Your task to perform on an android device: open app "Venmo" Image 0: 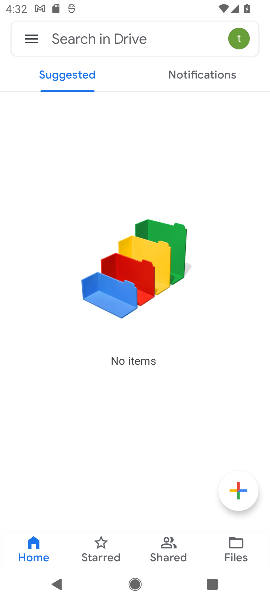
Step 0: press home button
Your task to perform on an android device: open app "Venmo" Image 1: 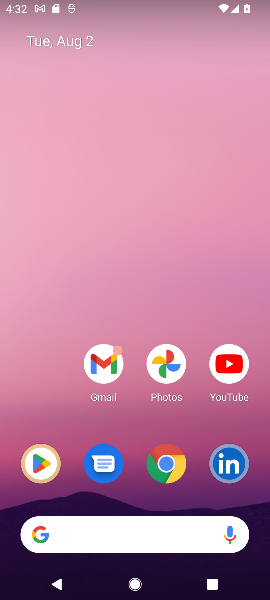
Step 1: click (42, 462)
Your task to perform on an android device: open app "Venmo" Image 2: 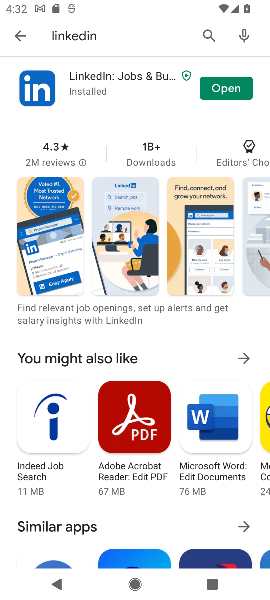
Step 2: click (202, 33)
Your task to perform on an android device: open app "Venmo" Image 3: 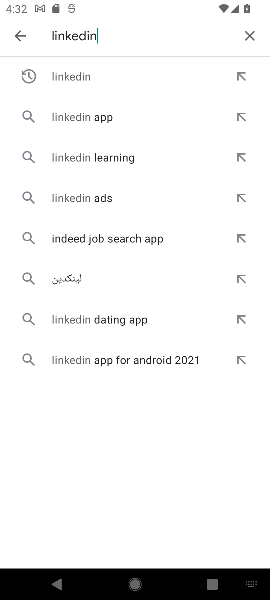
Step 3: click (245, 30)
Your task to perform on an android device: open app "Venmo" Image 4: 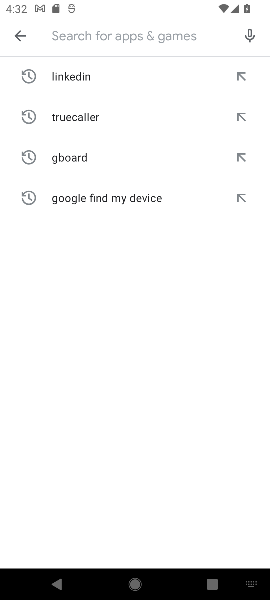
Step 4: type "Venmo"
Your task to perform on an android device: open app "Venmo" Image 5: 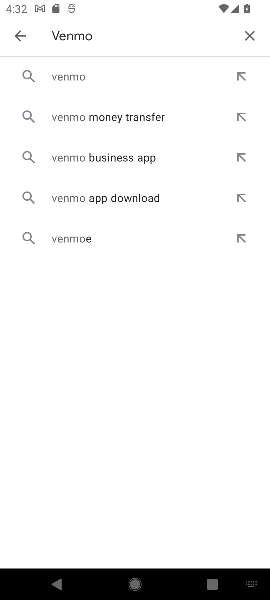
Step 5: click (57, 72)
Your task to perform on an android device: open app "Venmo" Image 6: 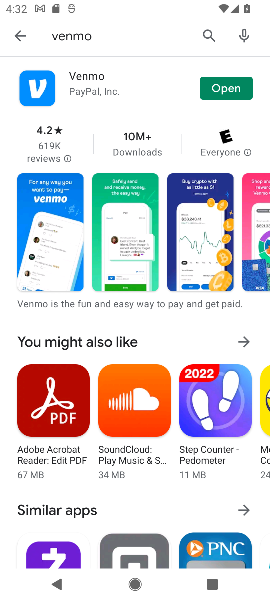
Step 6: click (227, 93)
Your task to perform on an android device: open app "Venmo" Image 7: 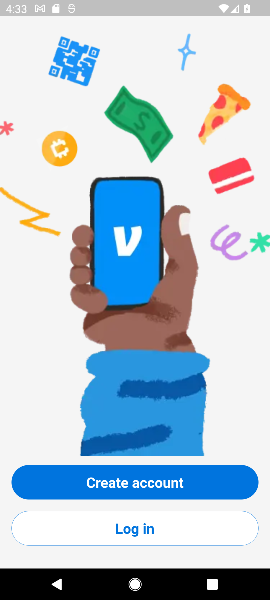
Step 7: task complete